Your task to perform on an android device: Go to eBay Image 0: 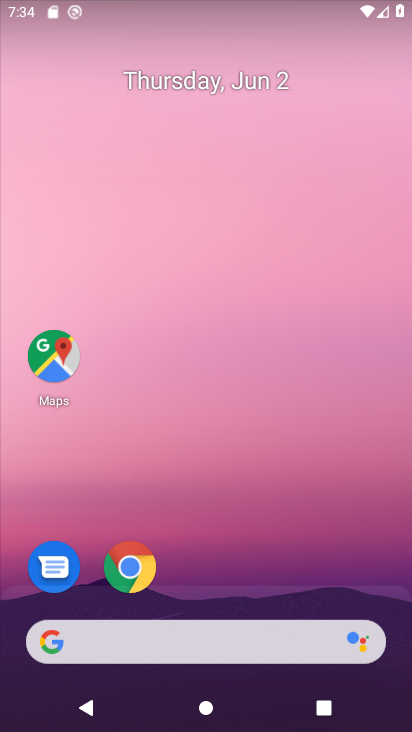
Step 0: drag from (360, 590) to (364, 134)
Your task to perform on an android device: Go to eBay Image 1: 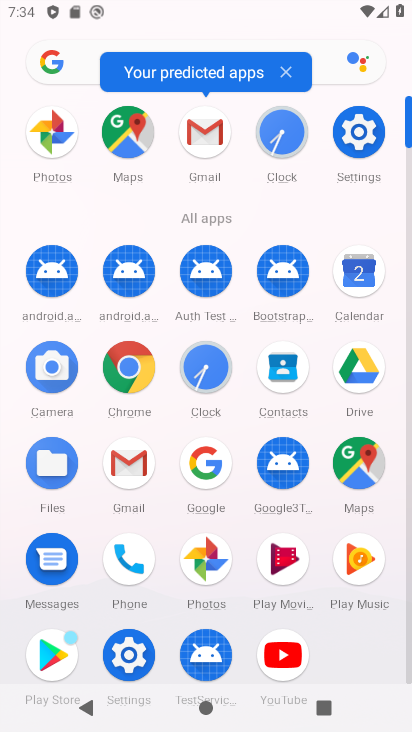
Step 1: click (128, 382)
Your task to perform on an android device: Go to eBay Image 2: 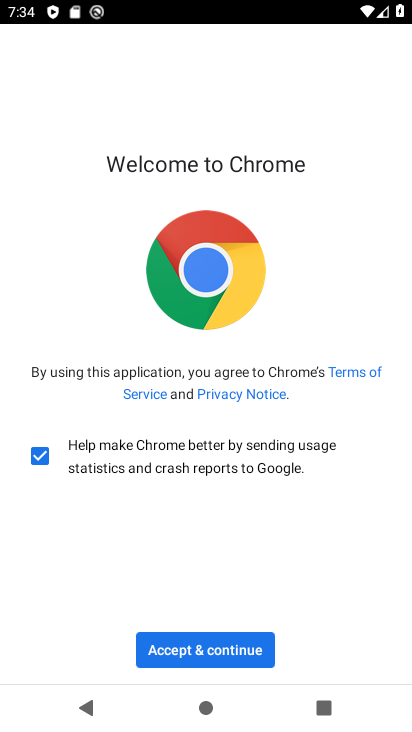
Step 2: click (241, 650)
Your task to perform on an android device: Go to eBay Image 3: 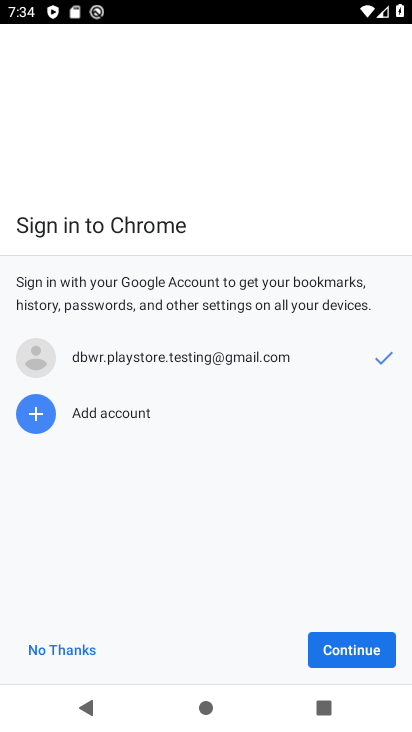
Step 3: click (342, 649)
Your task to perform on an android device: Go to eBay Image 4: 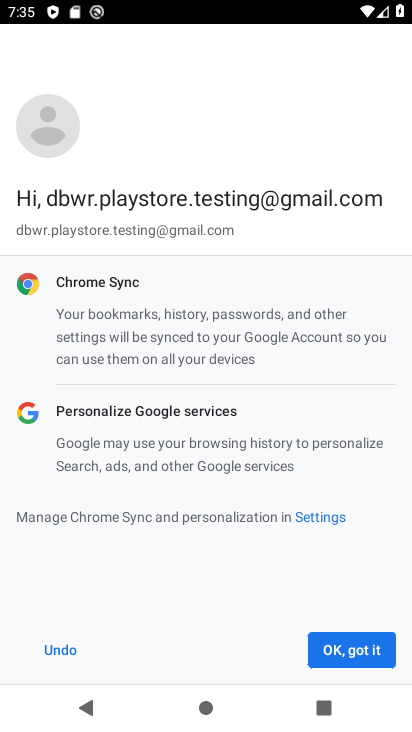
Step 4: click (366, 650)
Your task to perform on an android device: Go to eBay Image 5: 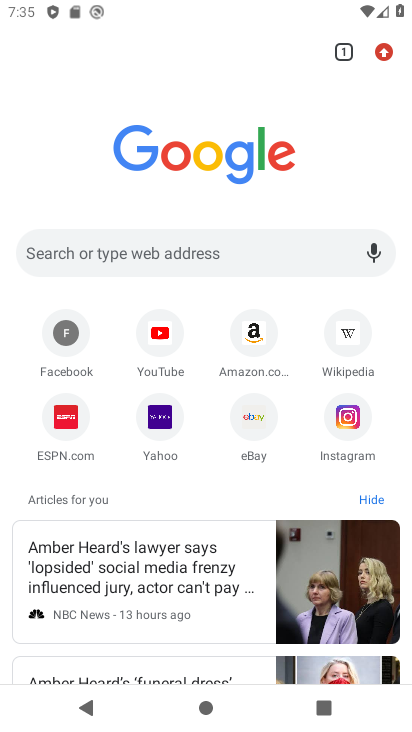
Step 5: click (259, 421)
Your task to perform on an android device: Go to eBay Image 6: 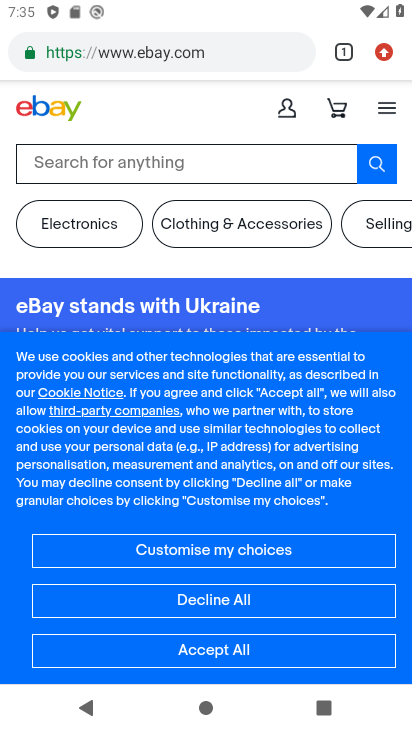
Step 6: task complete